Your task to perform on an android device: empty trash in google photos Image 0: 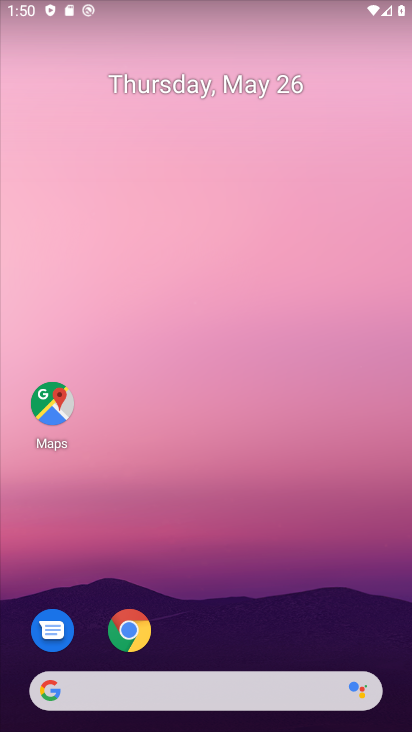
Step 0: drag from (205, 454) to (264, 57)
Your task to perform on an android device: empty trash in google photos Image 1: 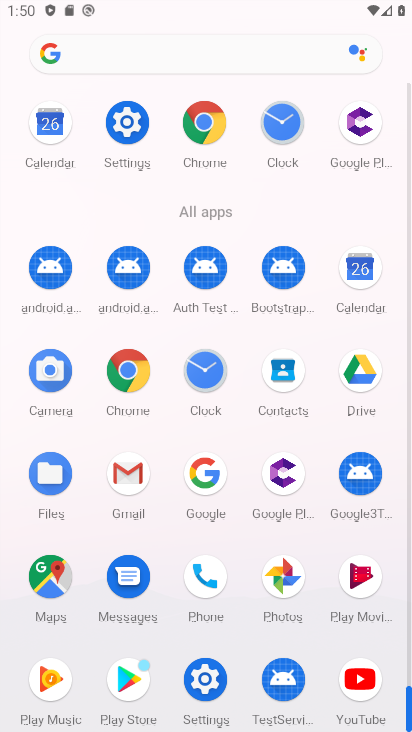
Step 1: click (292, 568)
Your task to perform on an android device: empty trash in google photos Image 2: 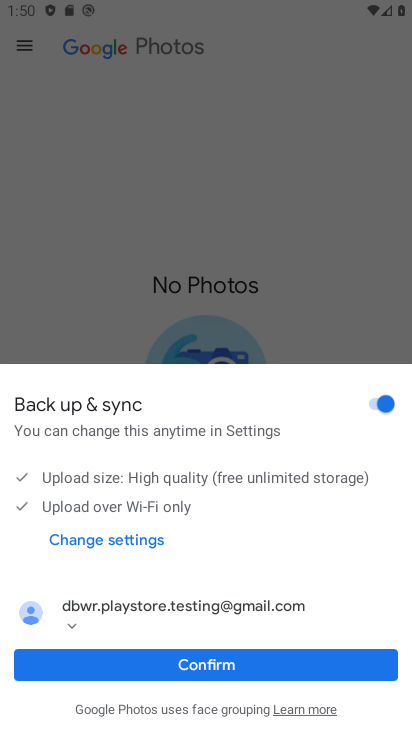
Step 2: click (188, 660)
Your task to perform on an android device: empty trash in google photos Image 3: 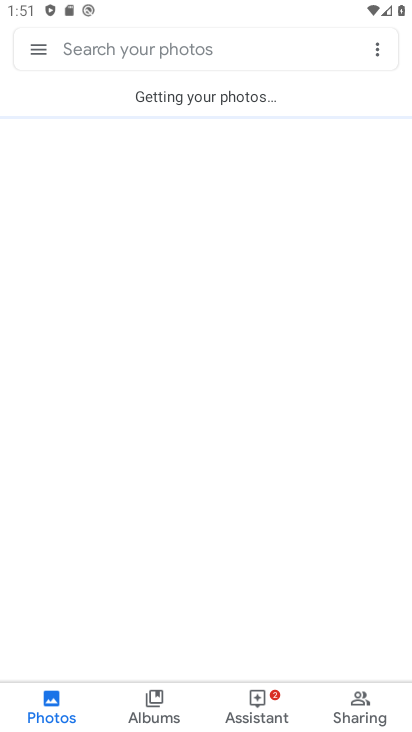
Step 3: click (149, 718)
Your task to perform on an android device: empty trash in google photos Image 4: 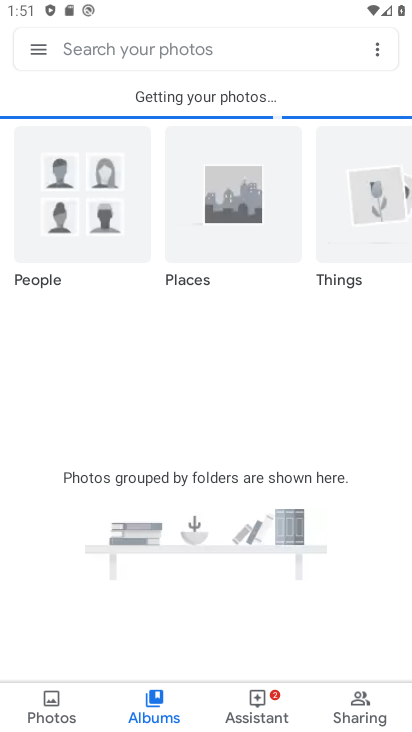
Step 4: click (238, 721)
Your task to perform on an android device: empty trash in google photos Image 5: 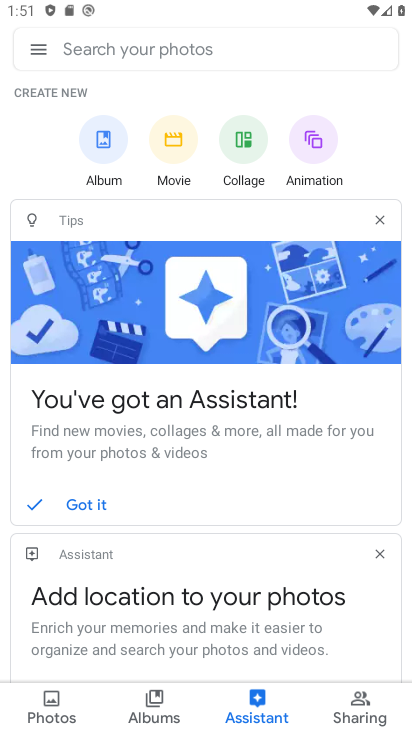
Step 5: click (341, 713)
Your task to perform on an android device: empty trash in google photos Image 6: 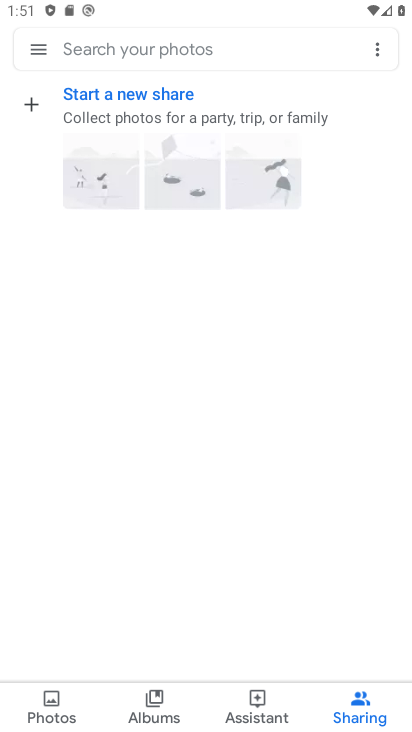
Step 6: click (35, 34)
Your task to perform on an android device: empty trash in google photos Image 7: 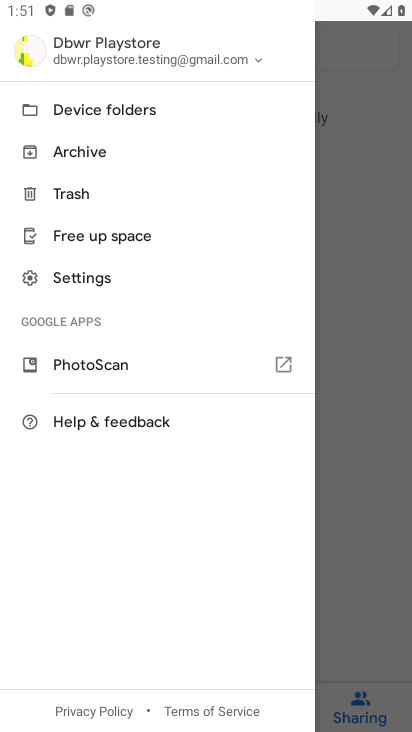
Step 7: click (83, 200)
Your task to perform on an android device: empty trash in google photos Image 8: 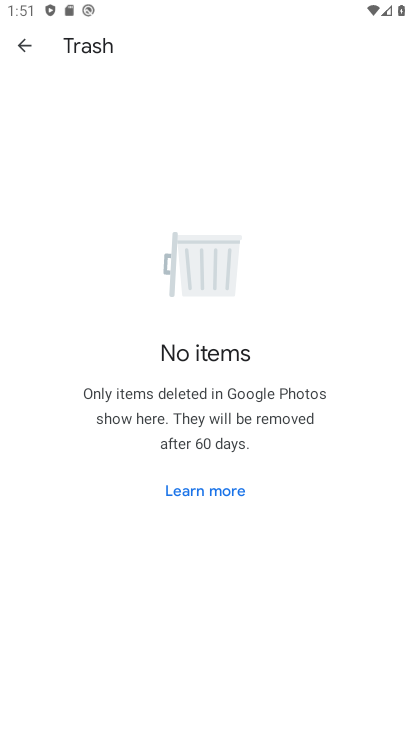
Step 8: task complete